Your task to perform on an android device: open a new tab in the chrome app Image 0: 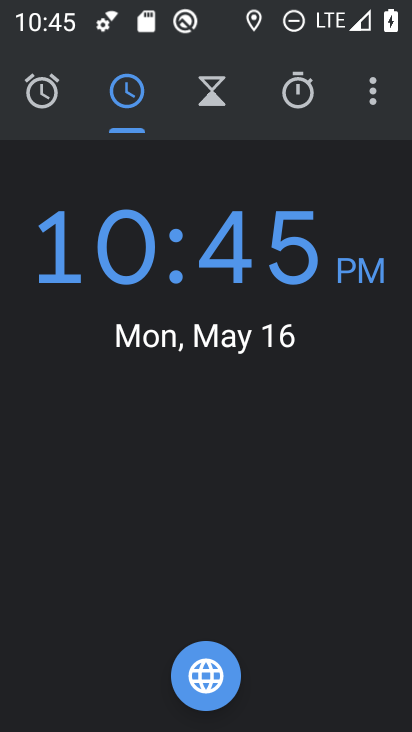
Step 0: press home button
Your task to perform on an android device: open a new tab in the chrome app Image 1: 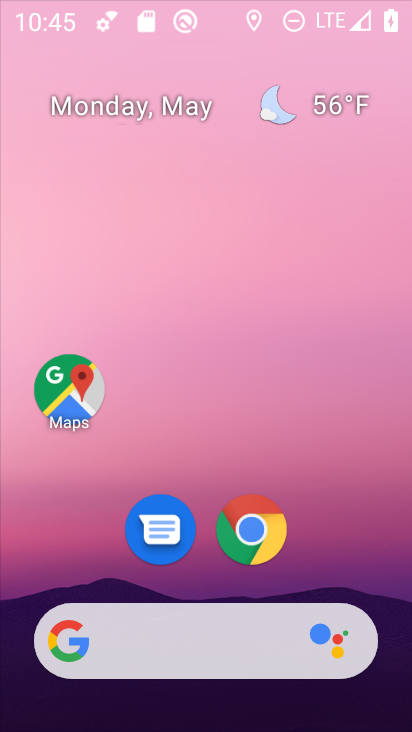
Step 1: press home button
Your task to perform on an android device: open a new tab in the chrome app Image 2: 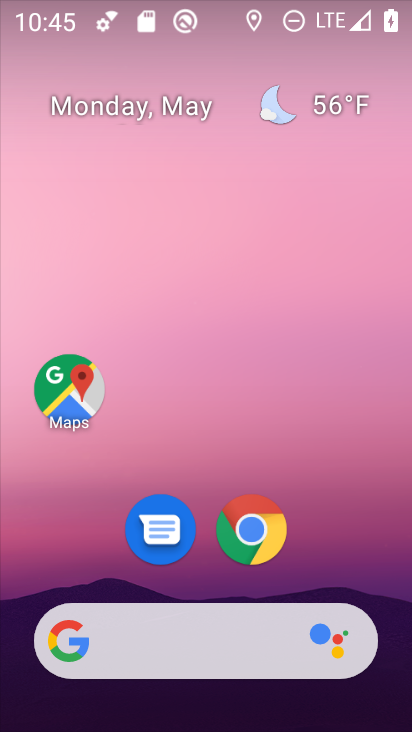
Step 2: click (255, 523)
Your task to perform on an android device: open a new tab in the chrome app Image 3: 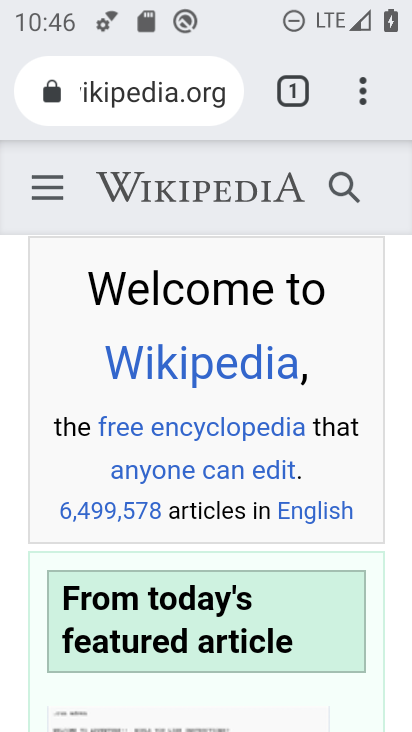
Step 3: task complete